Your task to perform on an android device: refresh tabs in the chrome app Image 0: 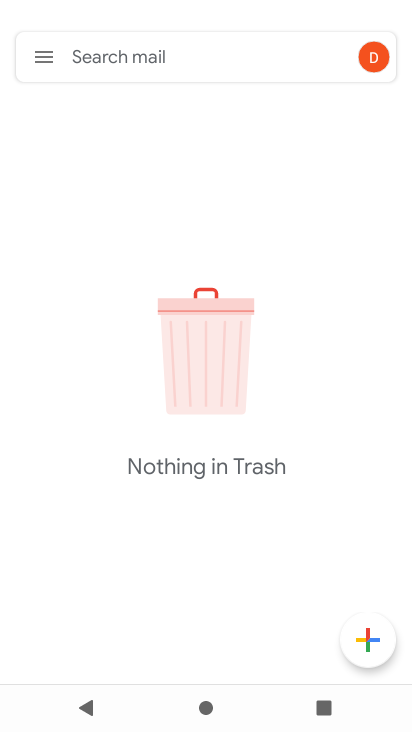
Step 0: press home button
Your task to perform on an android device: refresh tabs in the chrome app Image 1: 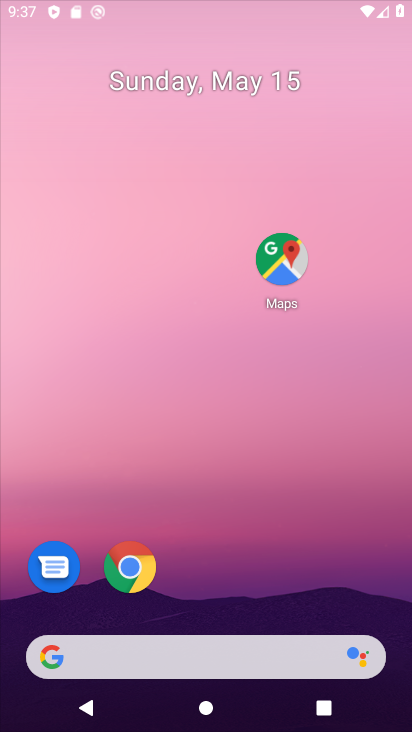
Step 1: click (133, 567)
Your task to perform on an android device: refresh tabs in the chrome app Image 2: 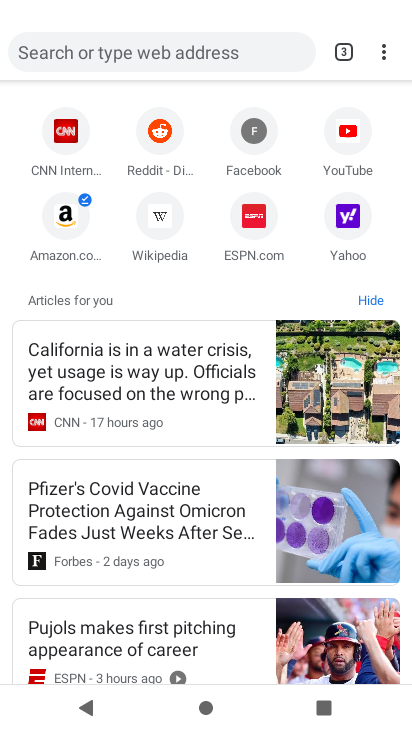
Step 2: click (381, 49)
Your task to perform on an android device: refresh tabs in the chrome app Image 3: 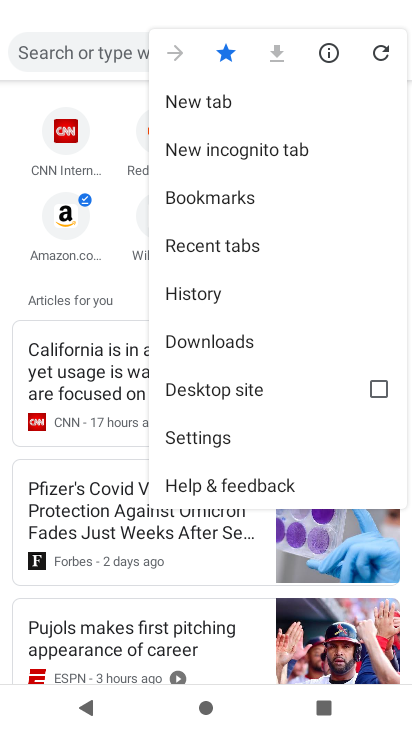
Step 3: click (373, 54)
Your task to perform on an android device: refresh tabs in the chrome app Image 4: 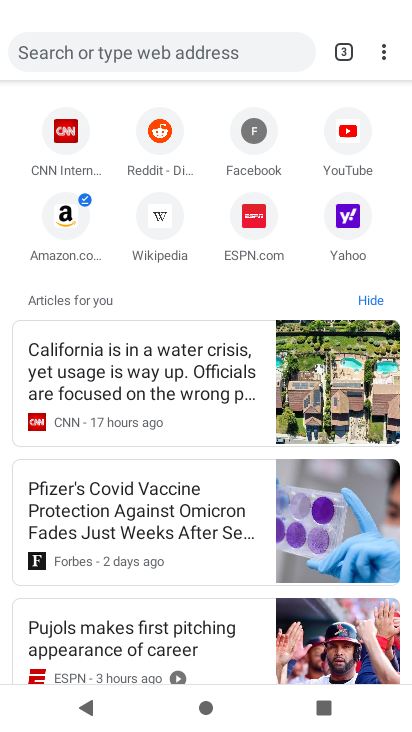
Step 4: task complete